Your task to perform on an android device: What is the news today? Image 0: 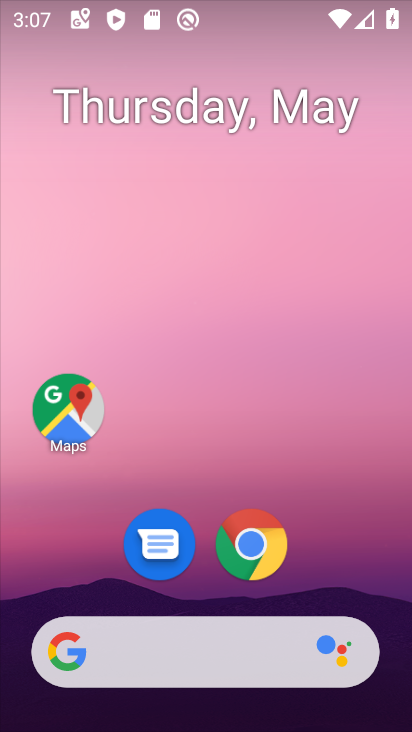
Step 0: click (213, 658)
Your task to perform on an android device: What is the news today? Image 1: 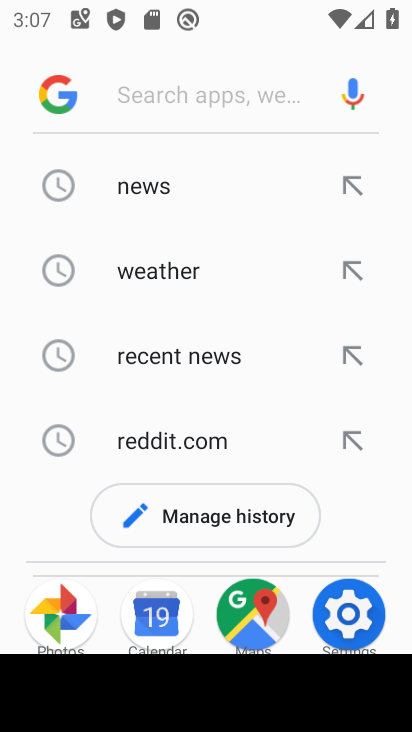
Step 1: type "news today"
Your task to perform on an android device: What is the news today? Image 2: 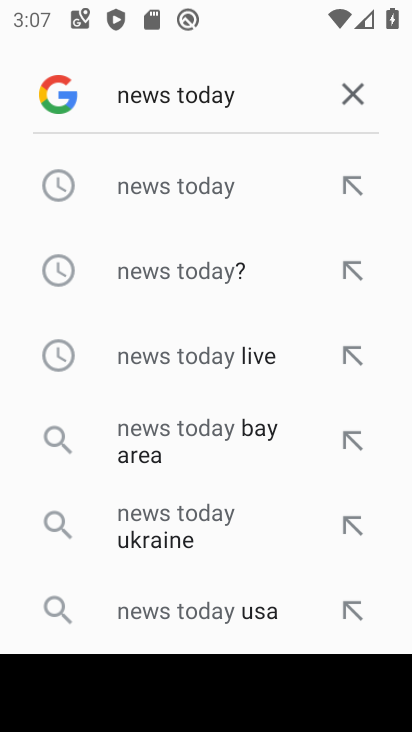
Step 2: click (237, 279)
Your task to perform on an android device: What is the news today? Image 3: 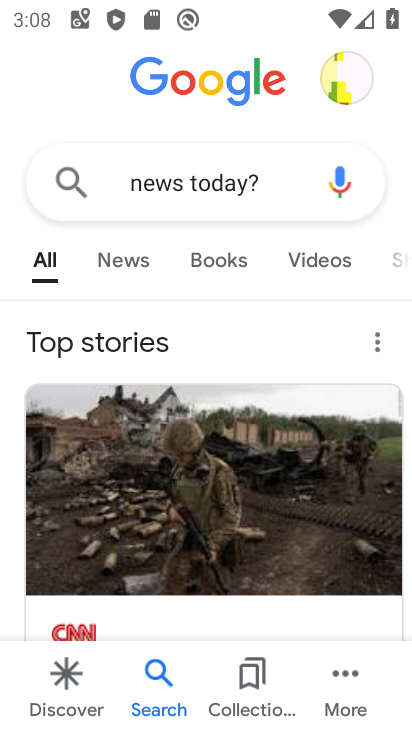
Step 3: task complete